Your task to perform on an android device: check out phone information Image 0: 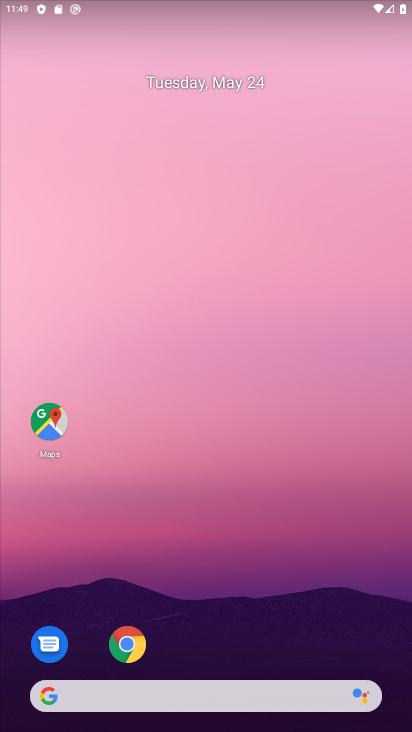
Step 0: drag from (145, 677) to (262, 185)
Your task to perform on an android device: check out phone information Image 1: 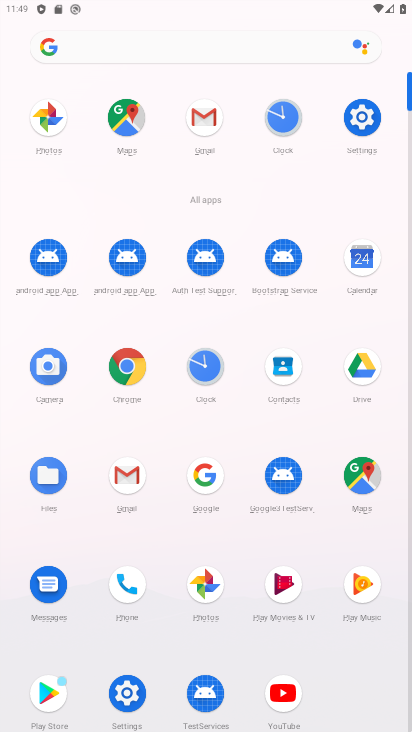
Step 1: drag from (196, 622) to (243, 396)
Your task to perform on an android device: check out phone information Image 2: 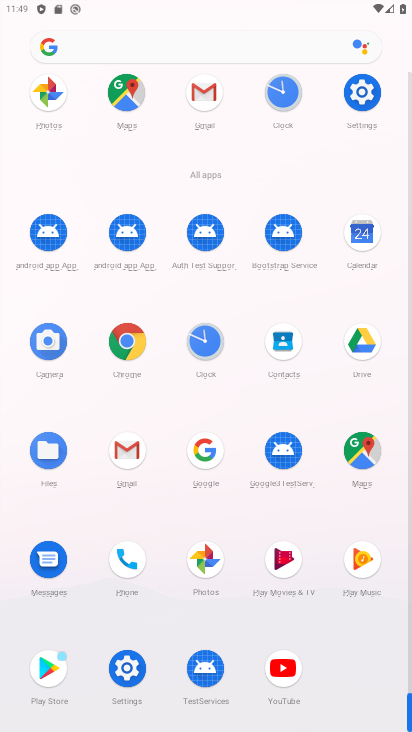
Step 2: click (126, 677)
Your task to perform on an android device: check out phone information Image 3: 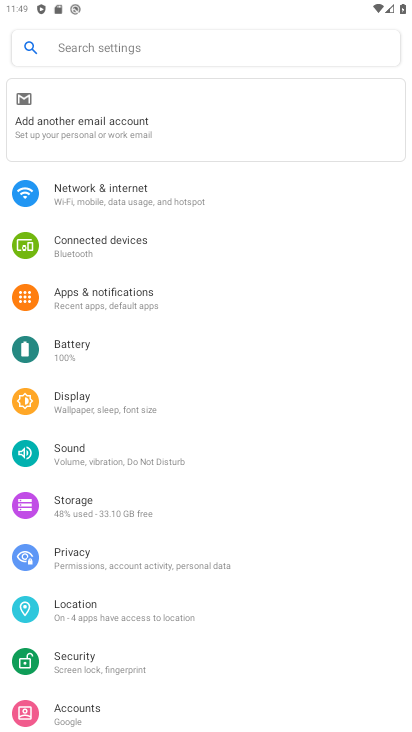
Step 3: drag from (129, 677) to (273, 66)
Your task to perform on an android device: check out phone information Image 4: 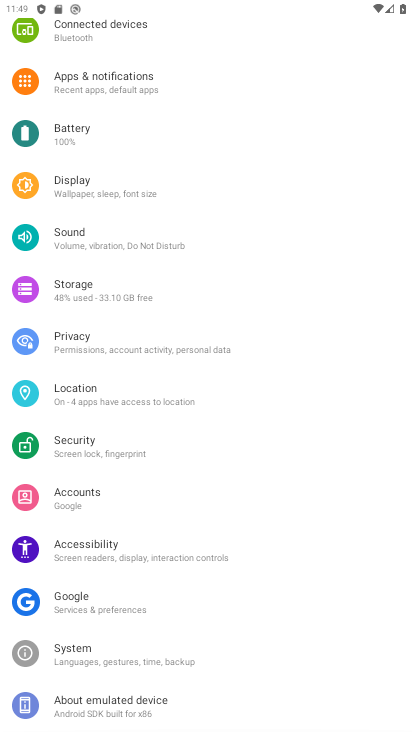
Step 4: click (139, 701)
Your task to perform on an android device: check out phone information Image 5: 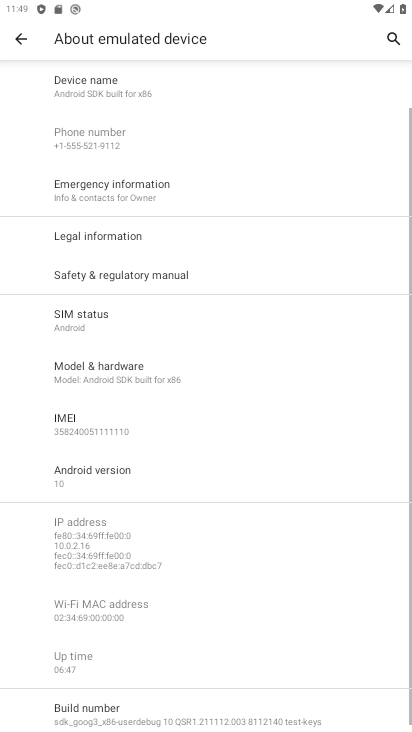
Step 5: task complete